Your task to perform on an android device: Open display settings Image 0: 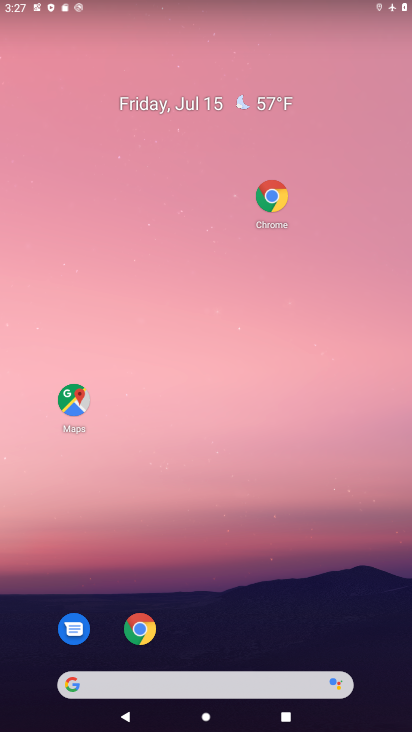
Step 0: drag from (182, 660) to (182, 130)
Your task to perform on an android device: Open display settings Image 1: 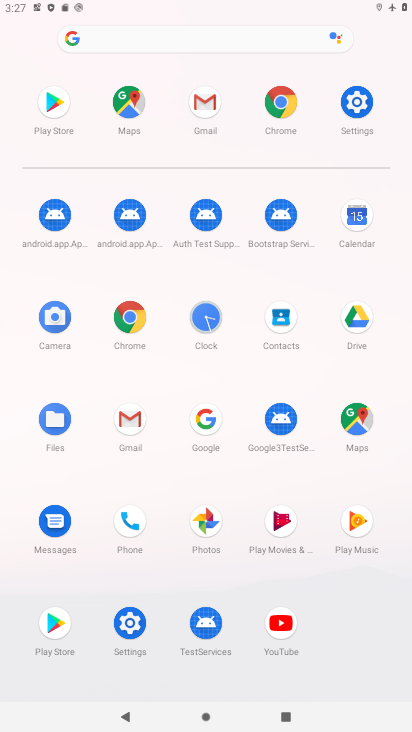
Step 1: click (350, 93)
Your task to perform on an android device: Open display settings Image 2: 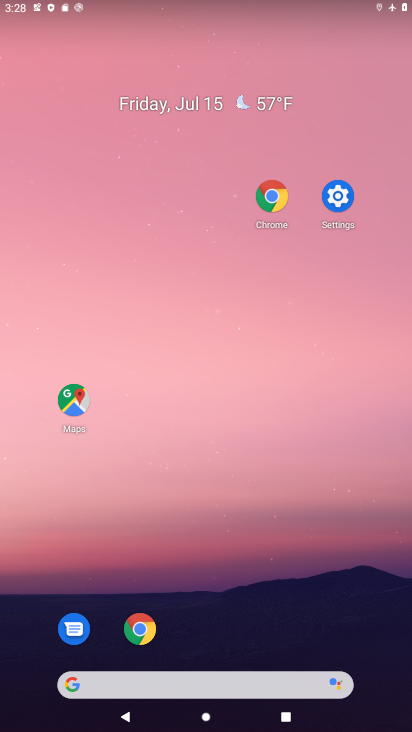
Step 2: drag from (265, 590) to (208, 187)
Your task to perform on an android device: Open display settings Image 3: 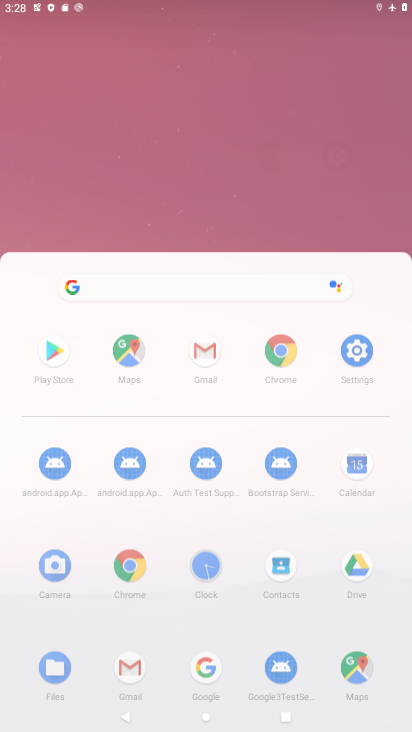
Step 3: drag from (254, 520) to (251, 83)
Your task to perform on an android device: Open display settings Image 4: 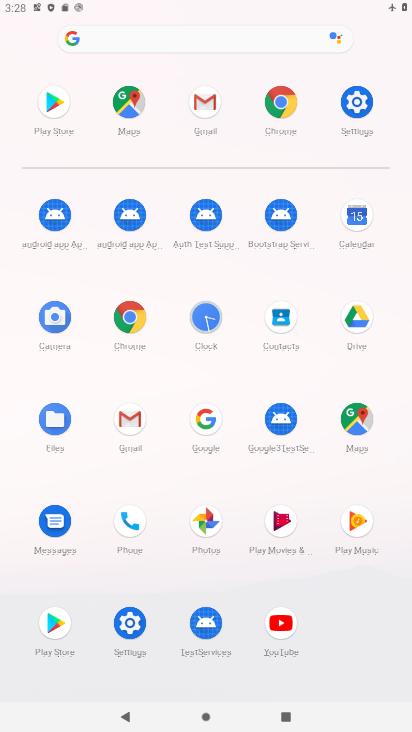
Step 4: click (351, 96)
Your task to perform on an android device: Open display settings Image 5: 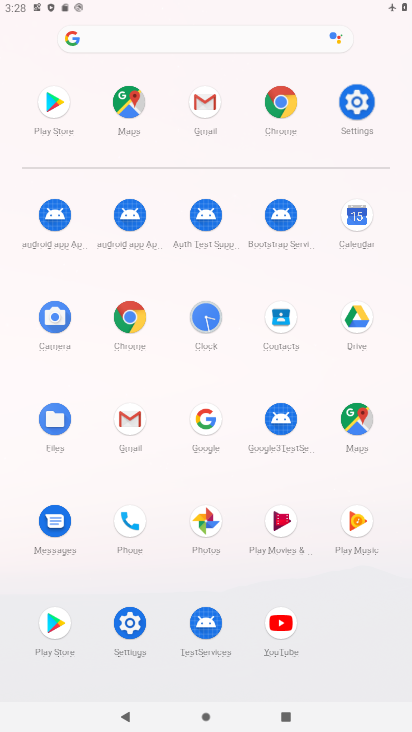
Step 5: click (351, 98)
Your task to perform on an android device: Open display settings Image 6: 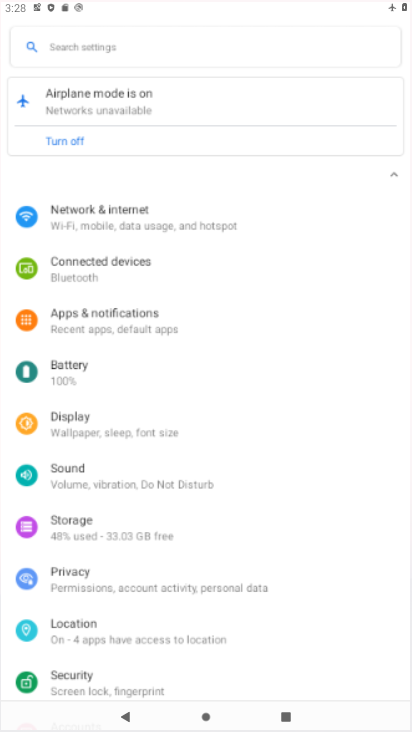
Step 6: click (357, 101)
Your task to perform on an android device: Open display settings Image 7: 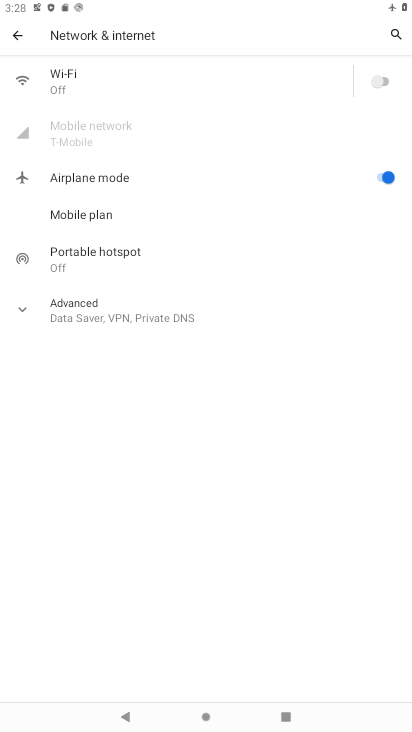
Step 7: click (17, 415)
Your task to perform on an android device: Open display settings Image 8: 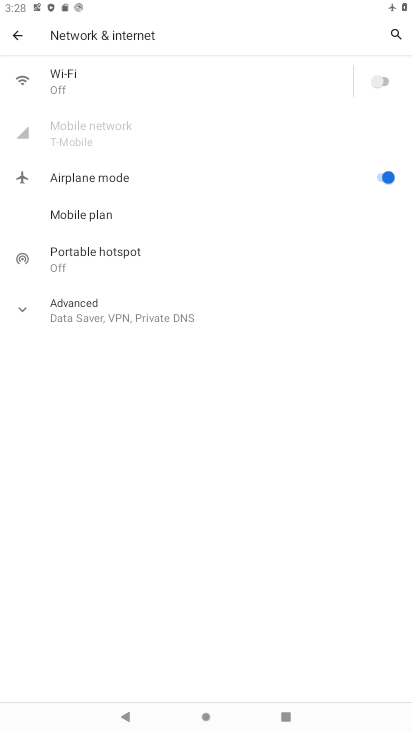
Step 8: click (10, 25)
Your task to perform on an android device: Open display settings Image 9: 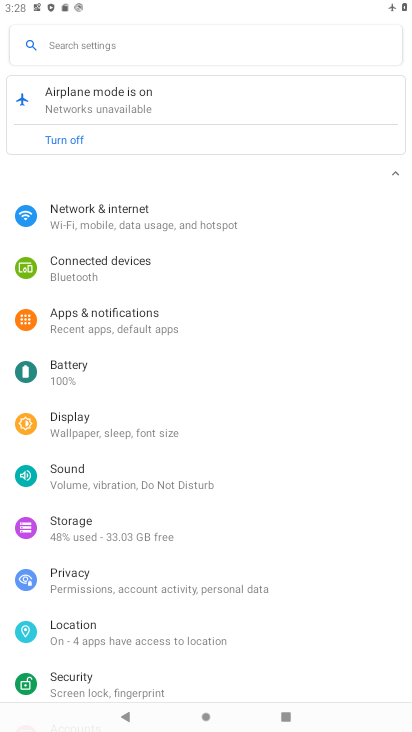
Step 9: click (74, 412)
Your task to perform on an android device: Open display settings Image 10: 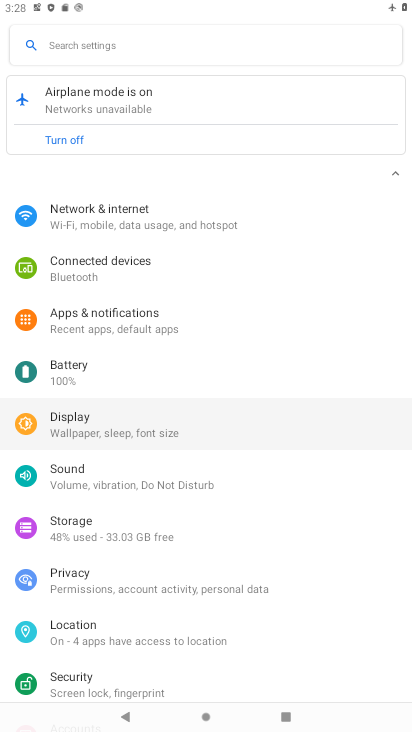
Step 10: click (88, 429)
Your task to perform on an android device: Open display settings Image 11: 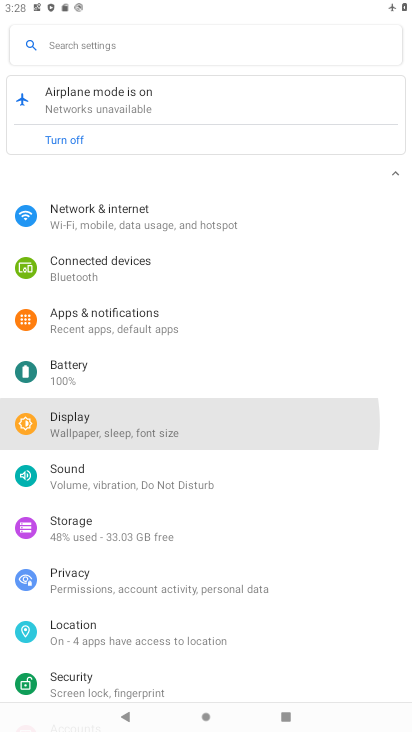
Step 11: click (88, 429)
Your task to perform on an android device: Open display settings Image 12: 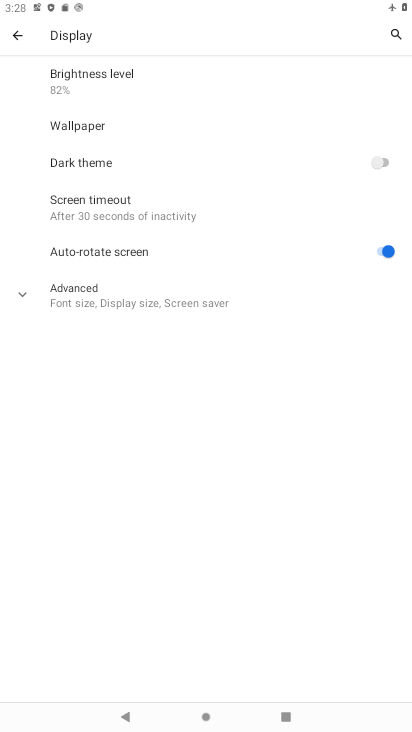
Step 12: task complete